Your task to perform on an android device: Open the calendar and show me this week's events? Image 0: 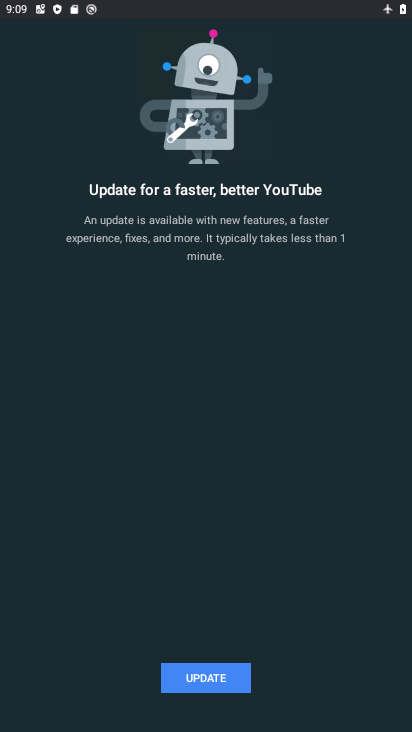
Step 0: press home button
Your task to perform on an android device: Open the calendar and show me this week's events? Image 1: 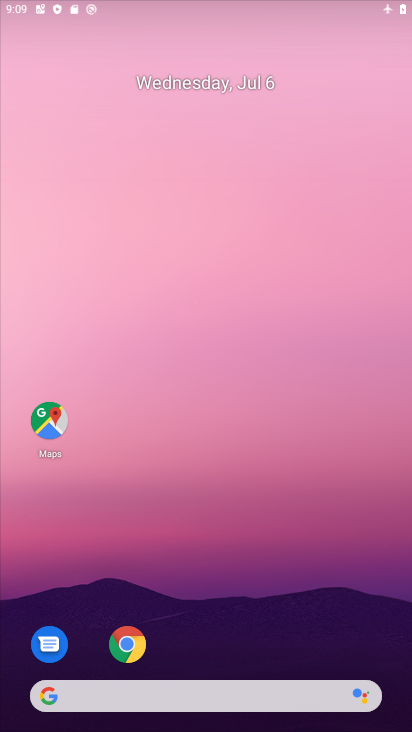
Step 1: drag from (208, 616) to (172, 149)
Your task to perform on an android device: Open the calendar and show me this week's events? Image 2: 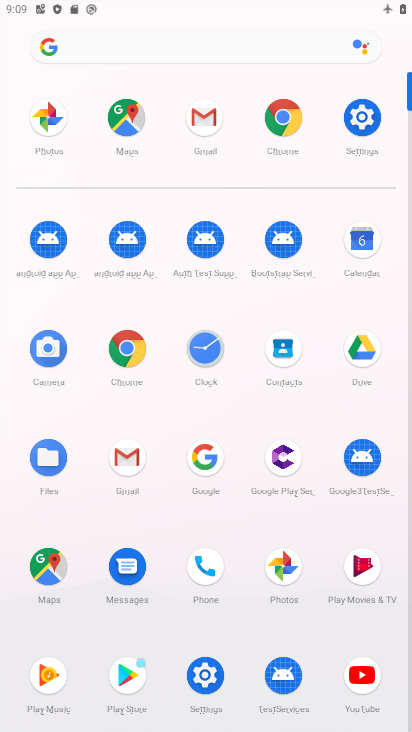
Step 2: click (359, 242)
Your task to perform on an android device: Open the calendar and show me this week's events? Image 3: 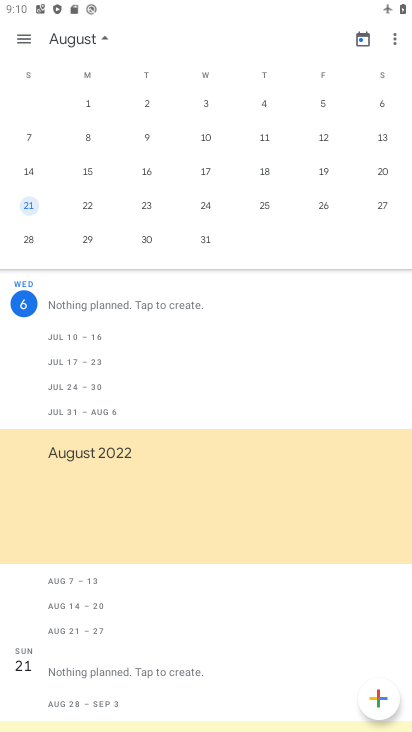
Step 3: click (23, 39)
Your task to perform on an android device: Open the calendar and show me this week's events? Image 4: 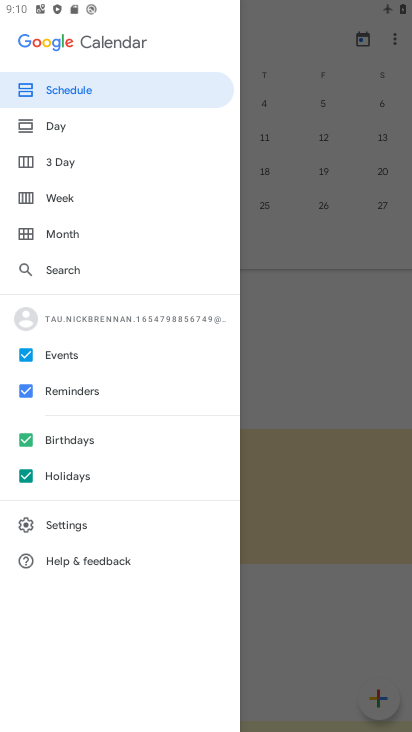
Step 4: click (78, 92)
Your task to perform on an android device: Open the calendar and show me this week's events? Image 5: 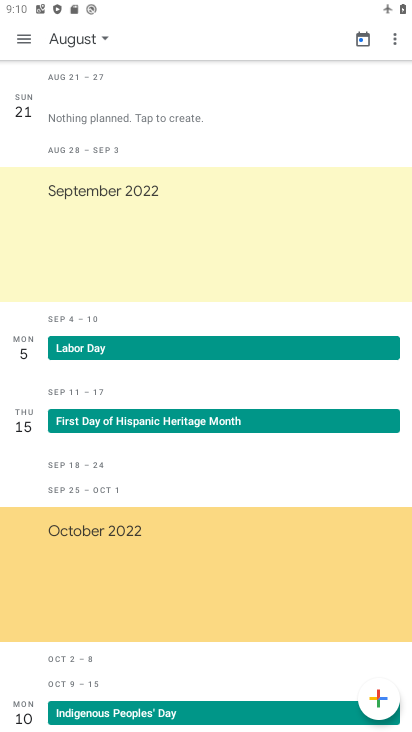
Step 5: drag from (260, 518) to (243, 236)
Your task to perform on an android device: Open the calendar and show me this week's events? Image 6: 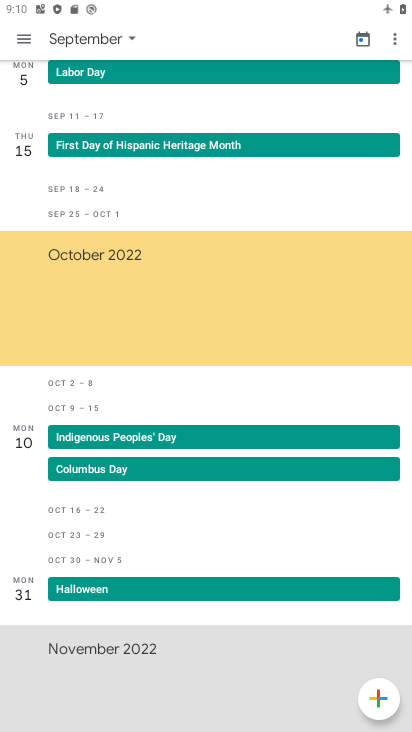
Step 6: drag from (173, 210) to (239, 563)
Your task to perform on an android device: Open the calendar and show me this week's events? Image 7: 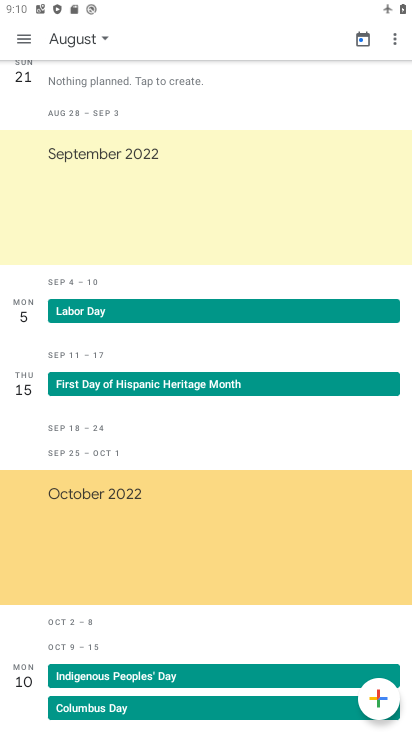
Step 7: click (99, 34)
Your task to perform on an android device: Open the calendar and show me this week's events? Image 8: 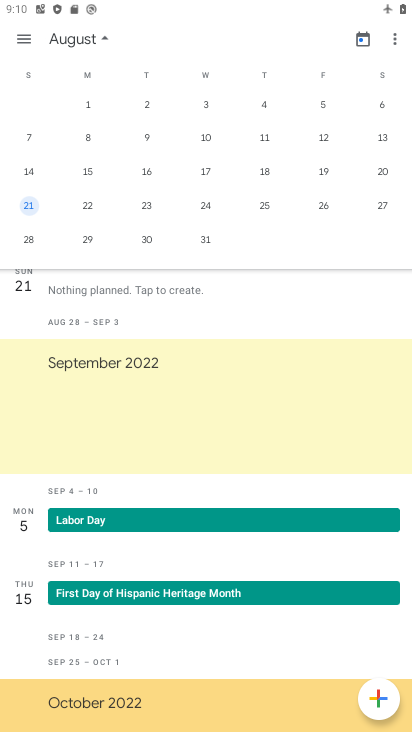
Step 8: task complete